Your task to perform on an android device: turn off smart reply in the gmail app Image 0: 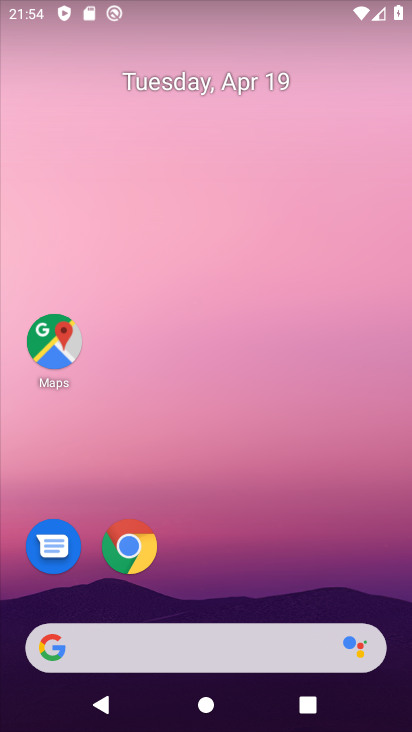
Step 0: click (266, 558)
Your task to perform on an android device: turn off smart reply in the gmail app Image 1: 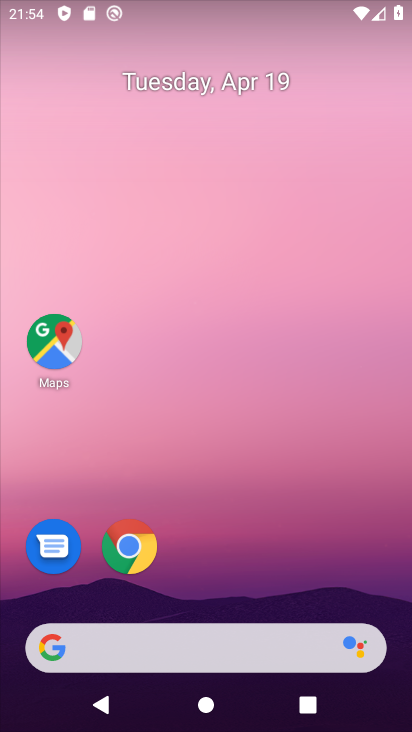
Step 1: drag from (246, 613) to (243, 7)
Your task to perform on an android device: turn off smart reply in the gmail app Image 2: 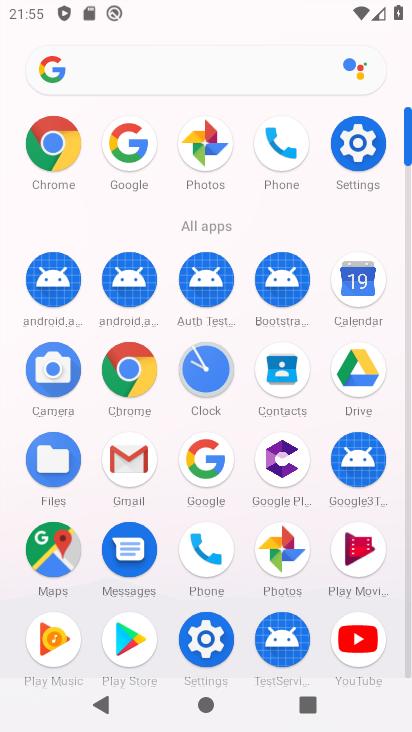
Step 2: click (136, 467)
Your task to perform on an android device: turn off smart reply in the gmail app Image 3: 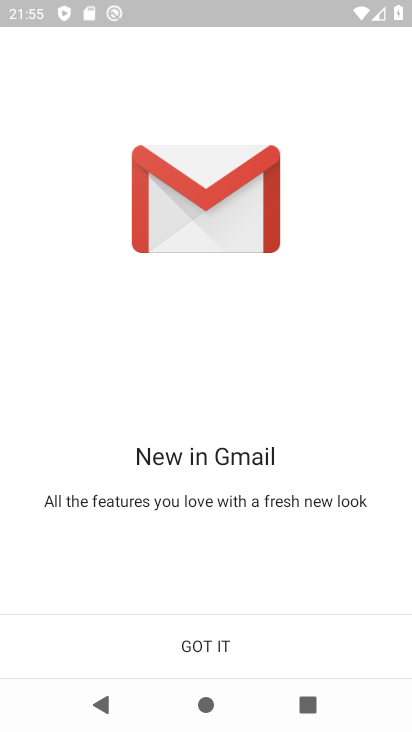
Step 3: click (214, 638)
Your task to perform on an android device: turn off smart reply in the gmail app Image 4: 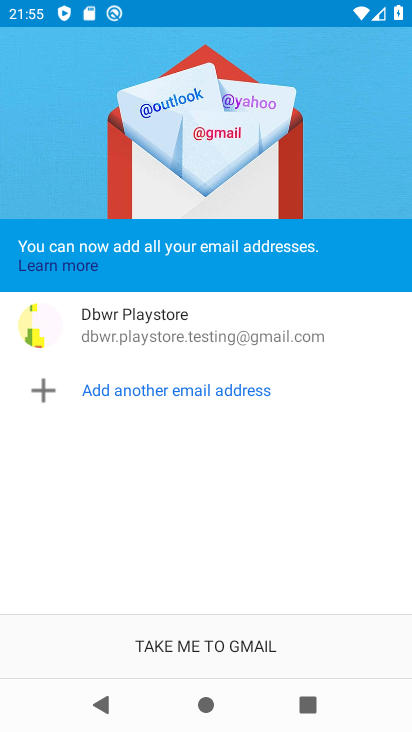
Step 4: click (189, 651)
Your task to perform on an android device: turn off smart reply in the gmail app Image 5: 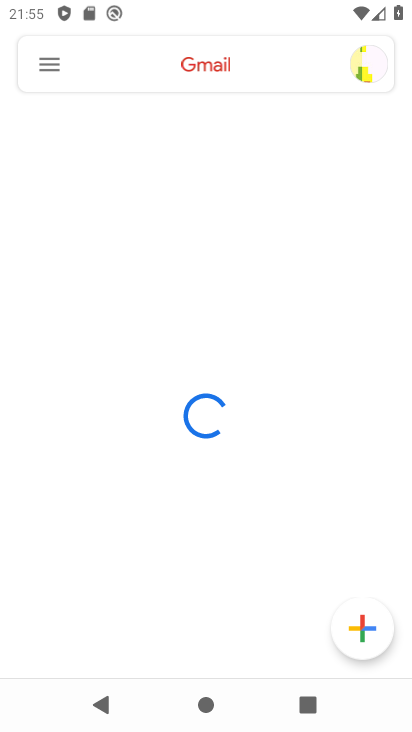
Step 5: click (26, 61)
Your task to perform on an android device: turn off smart reply in the gmail app Image 6: 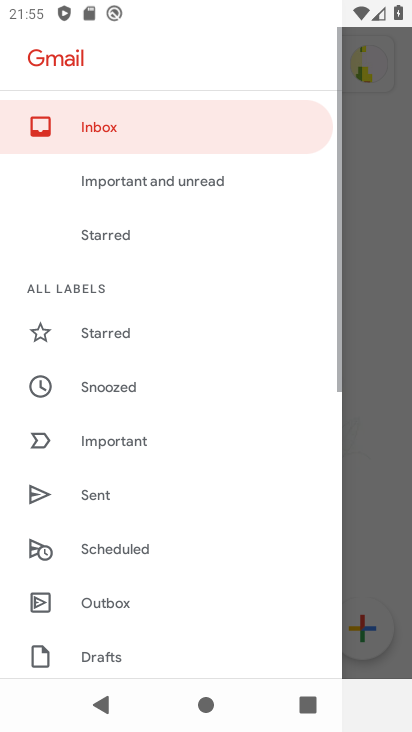
Step 6: drag from (47, 448) to (51, 102)
Your task to perform on an android device: turn off smart reply in the gmail app Image 7: 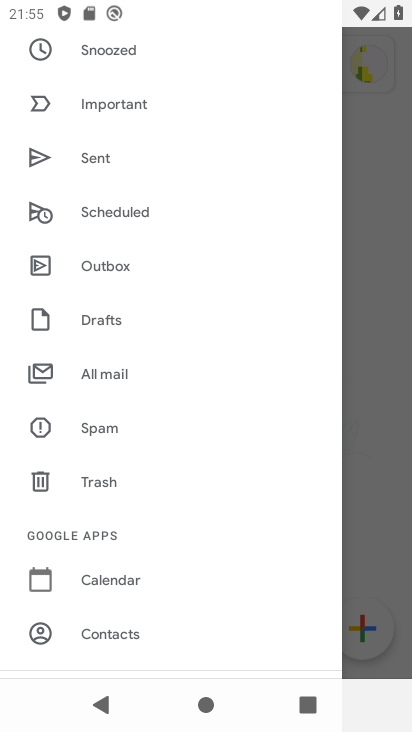
Step 7: drag from (132, 618) to (119, 152)
Your task to perform on an android device: turn off smart reply in the gmail app Image 8: 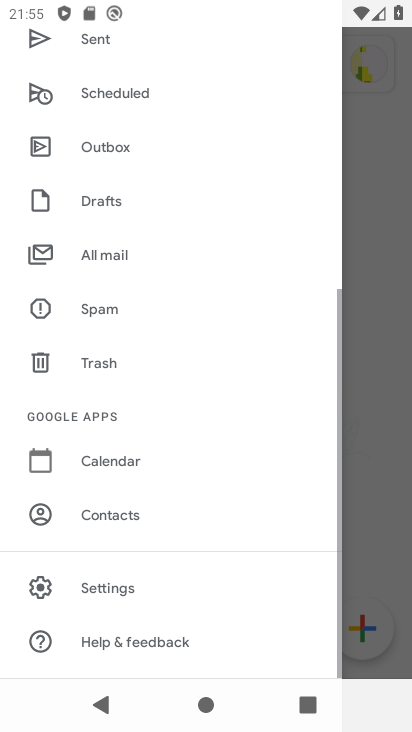
Step 8: click (129, 594)
Your task to perform on an android device: turn off smart reply in the gmail app Image 9: 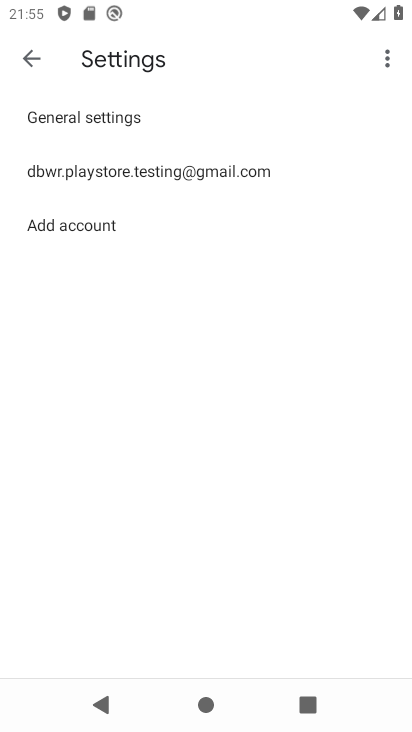
Step 9: drag from (152, 565) to (137, 279)
Your task to perform on an android device: turn off smart reply in the gmail app Image 10: 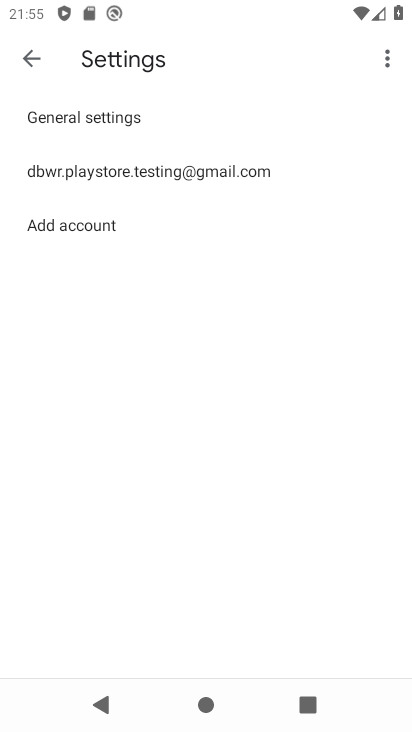
Step 10: click (127, 179)
Your task to perform on an android device: turn off smart reply in the gmail app Image 11: 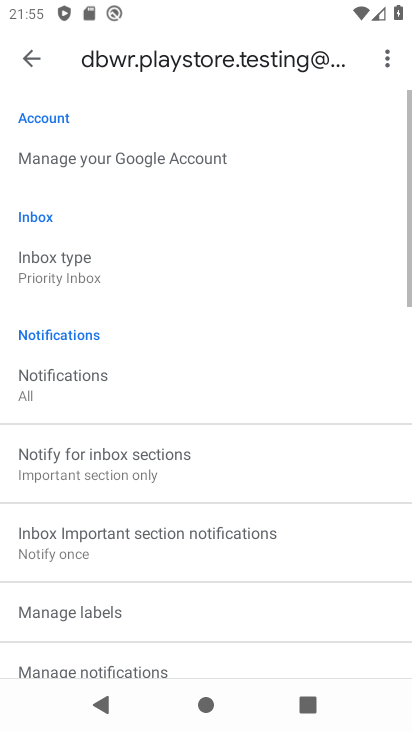
Step 11: drag from (166, 536) to (150, 4)
Your task to perform on an android device: turn off smart reply in the gmail app Image 12: 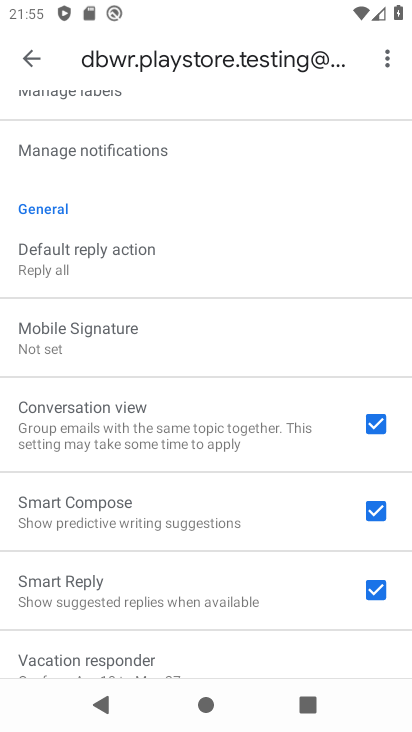
Step 12: click (376, 588)
Your task to perform on an android device: turn off smart reply in the gmail app Image 13: 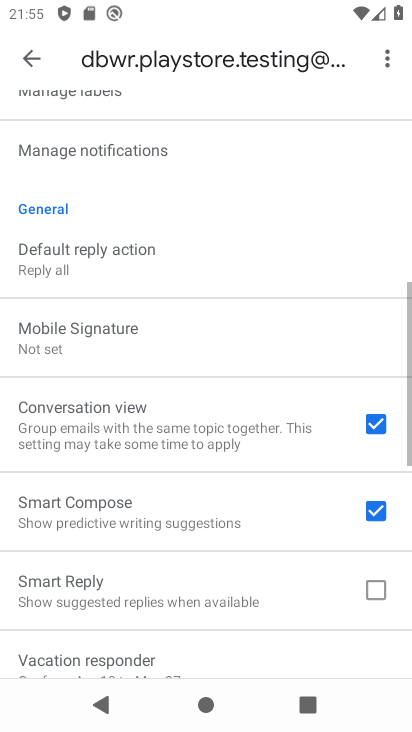
Step 13: task complete